Your task to perform on an android device: turn off notifications settings in the gmail app Image 0: 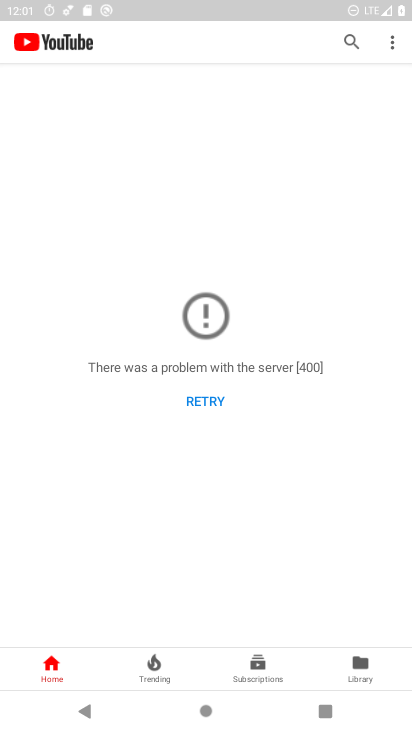
Step 0: press home button
Your task to perform on an android device: turn off notifications settings in the gmail app Image 1: 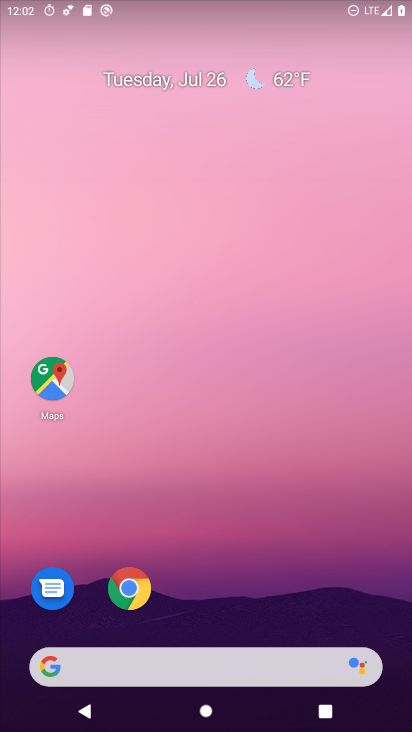
Step 1: drag from (7, 631) to (228, 79)
Your task to perform on an android device: turn off notifications settings in the gmail app Image 2: 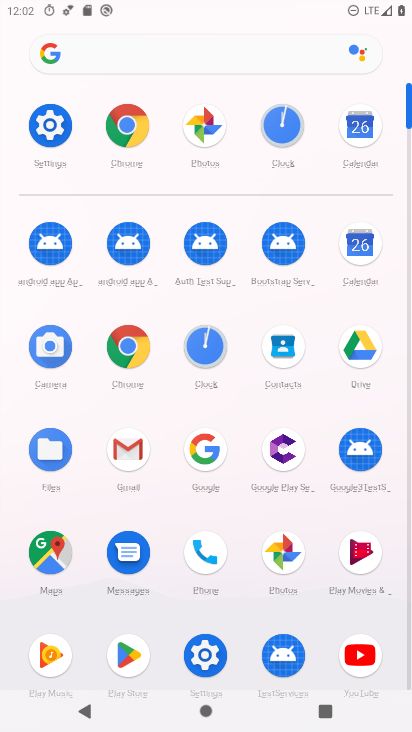
Step 2: click (114, 451)
Your task to perform on an android device: turn off notifications settings in the gmail app Image 3: 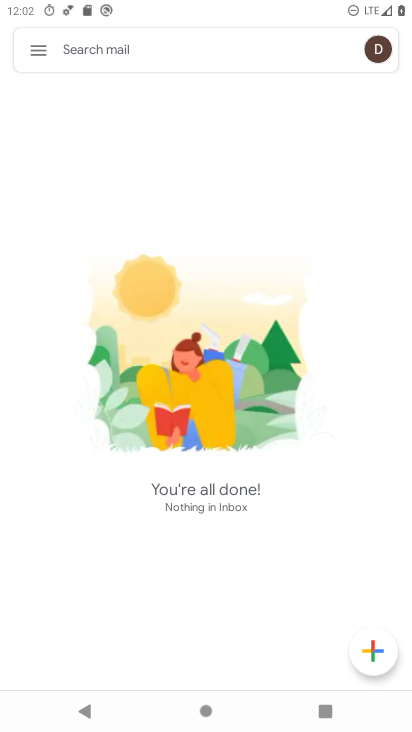
Step 3: click (31, 53)
Your task to perform on an android device: turn off notifications settings in the gmail app Image 4: 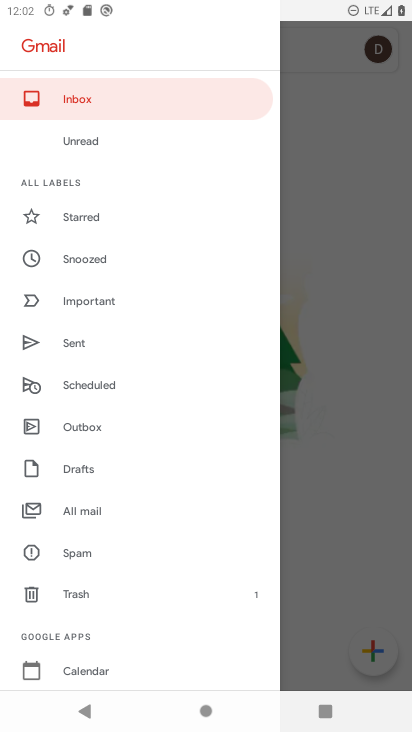
Step 4: drag from (32, 689) to (177, 237)
Your task to perform on an android device: turn off notifications settings in the gmail app Image 5: 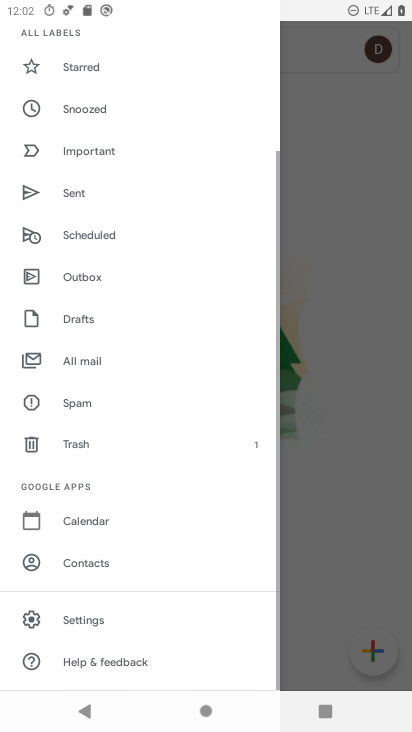
Step 5: click (67, 617)
Your task to perform on an android device: turn off notifications settings in the gmail app Image 6: 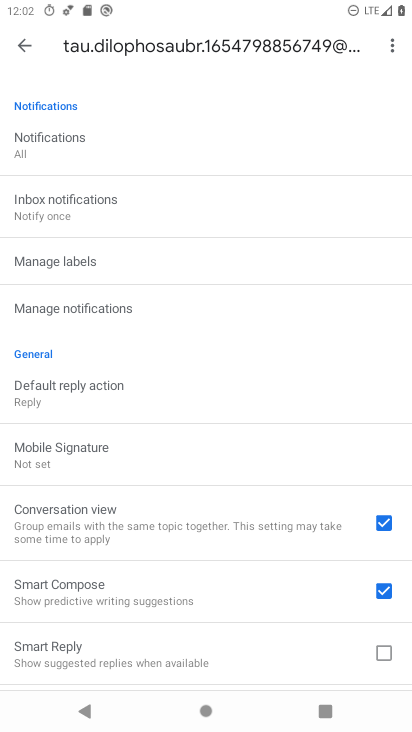
Step 6: click (118, 314)
Your task to perform on an android device: turn off notifications settings in the gmail app Image 7: 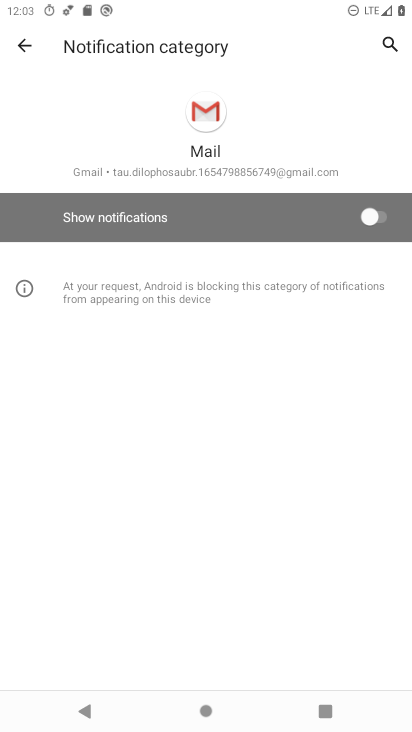
Step 7: task complete